Your task to perform on an android device: Search for pizza restaurants on Maps Image 0: 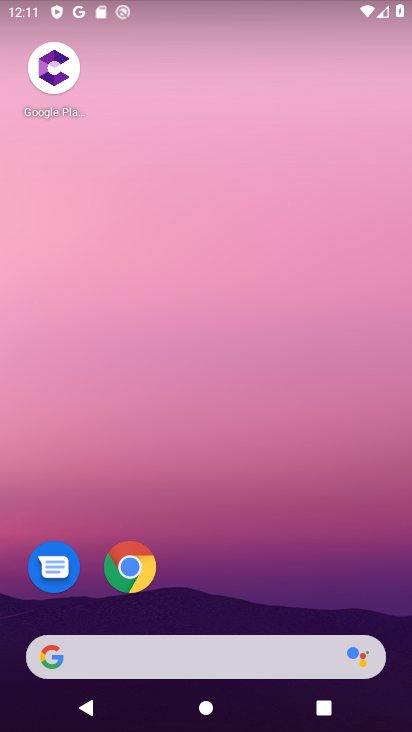
Step 0: drag from (251, 605) to (224, 178)
Your task to perform on an android device: Search for pizza restaurants on Maps Image 1: 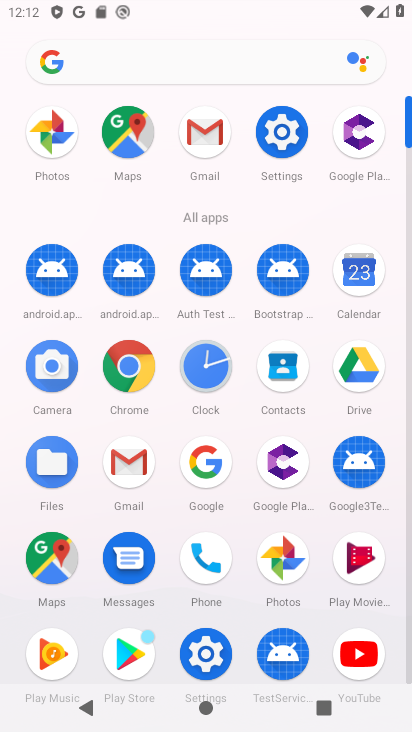
Step 1: click (136, 134)
Your task to perform on an android device: Search for pizza restaurants on Maps Image 2: 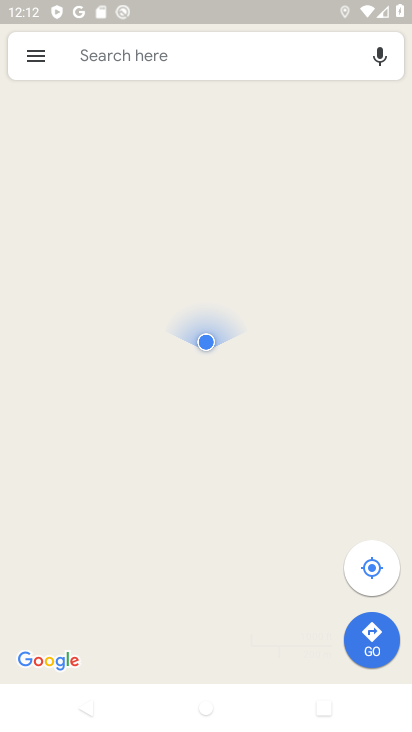
Step 2: click (144, 69)
Your task to perform on an android device: Search for pizza restaurants on Maps Image 3: 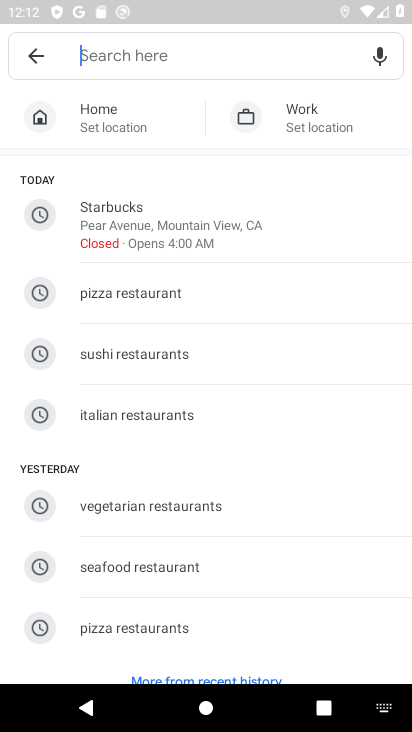
Step 3: type "pizza"
Your task to perform on an android device: Search for pizza restaurants on Maps Image 4: 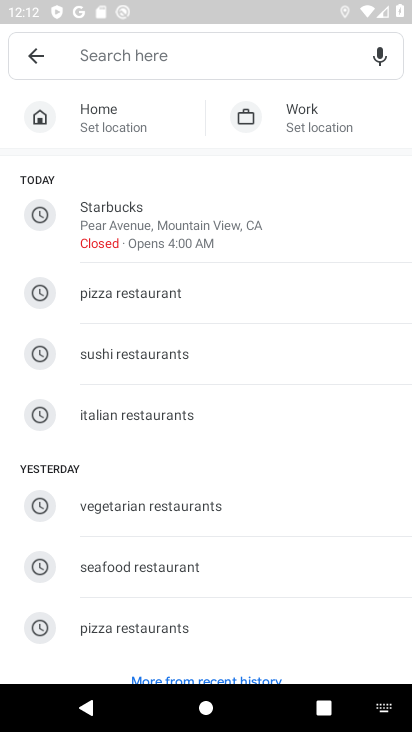
Step 4: click (245, 292)
Your task to perform on an android device: Search for pizza restaurants on Maps Image 5: 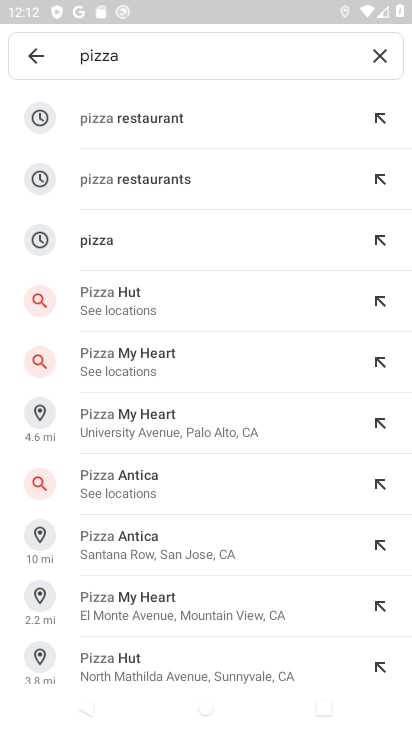
Step 5: click (228, 106)
Your task to perform on an android device: Search for pizza restaurants on Maps Image 6: 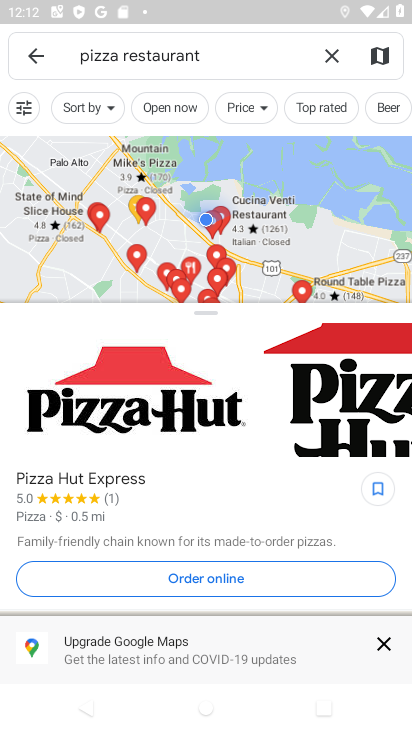
Step 6: task complete